Your task to perform on an android device: toggle data saver in the chrome app Image 0: 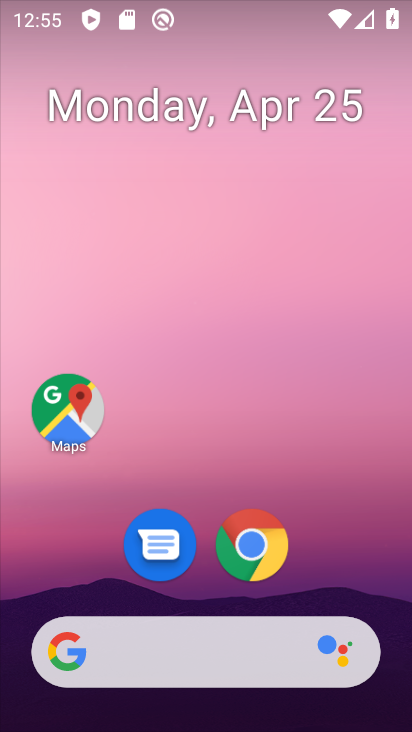
Step 0: click (255, 537)
Your task to perform on an android device: toggle data saver in the chrome app Image 1: 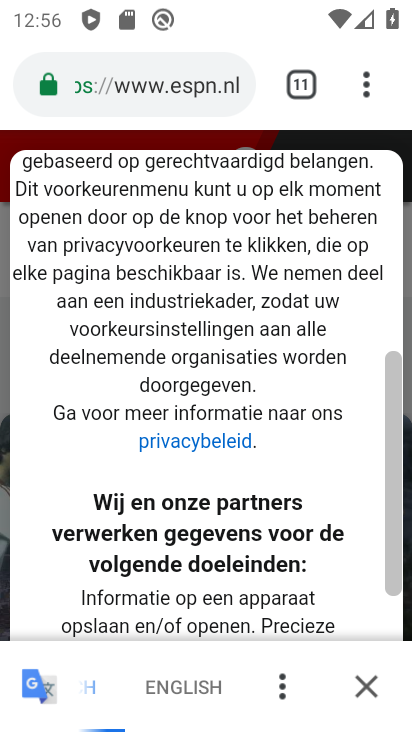
Step 1: drag from (370, 89) to (114, 597)
Your task to perform on an android device: toggle data saver in the chrome app Image 2: 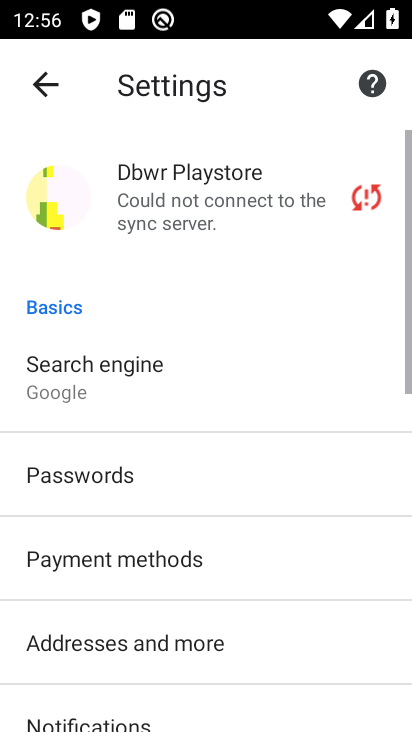
Step 2: drag from (300, 683) to (253, 221)
Your task to perform on an android device: toggle data saver in the chrome app Image 3: 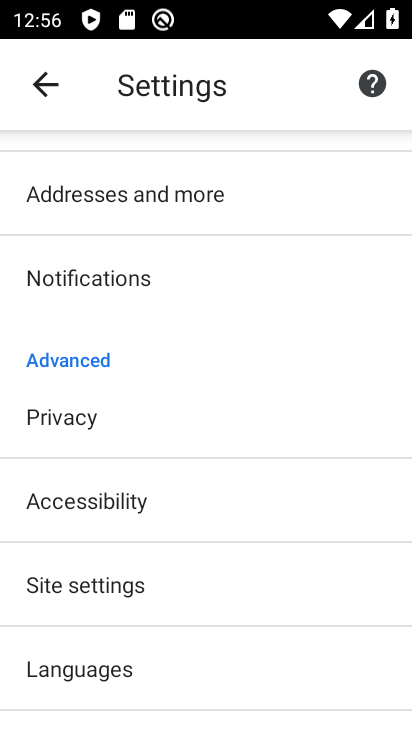
Step 3: drag from (92, 680) to (145, 360)
Your task to perform on an android device: toggle data saver in the chrome app Image 4: 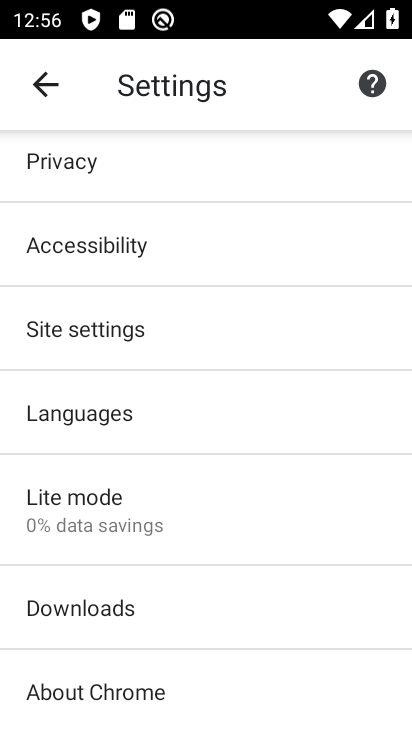
Step 4: click (77, 506)
Your task to perform on an android device: toggle data saver in the chrome app Image 5: 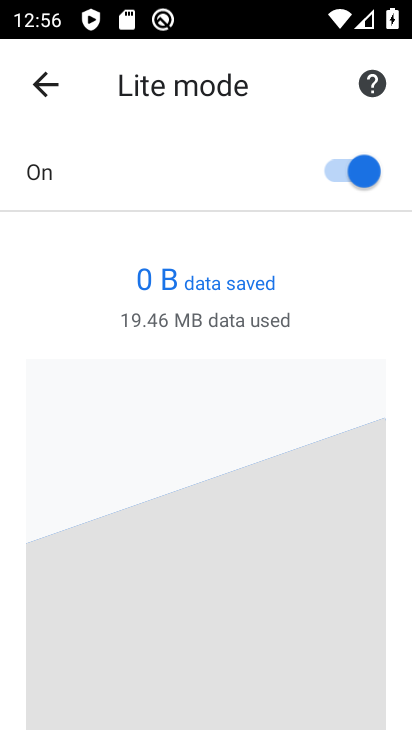
Step 5: click (355, 171)
Your task to perform on an android device: toggle data saver in the chrome app Image 6: 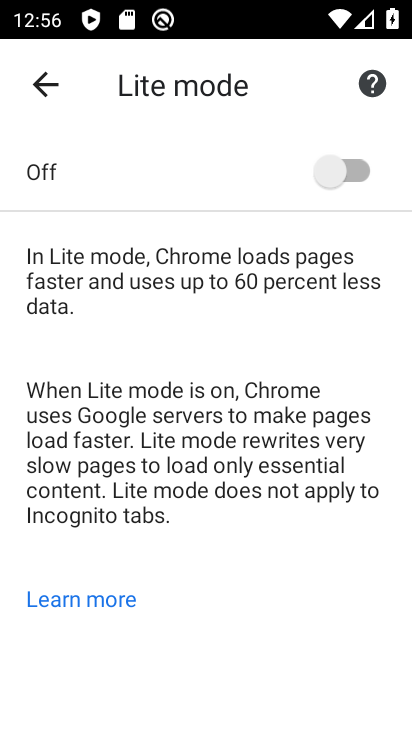
Step 6: task complete